Your task to perform on an android device: Go to ESPN.com Image 0: 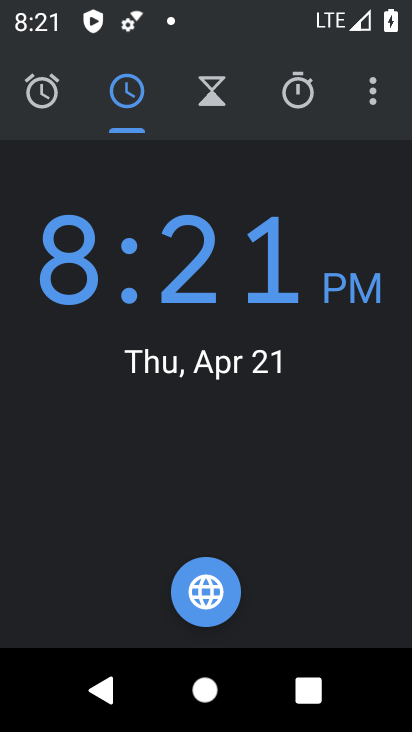
Step 0: press home button
Your task to perform on an android device: Go to ESPN.com Image 1: 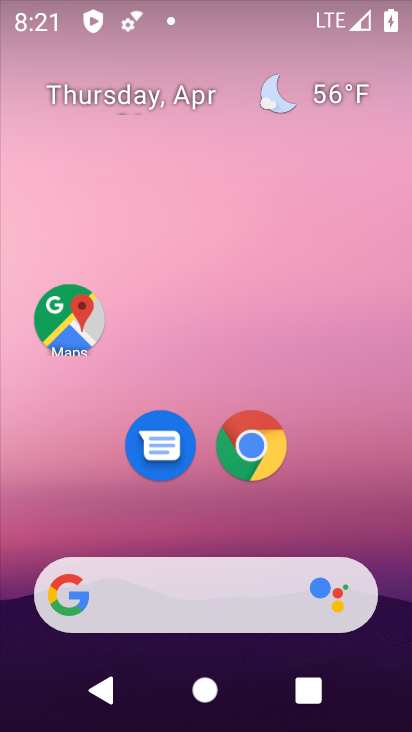
Step 1: click (272, 457)
Your task to perform on an android device: Go to ESPN.com Image 2: 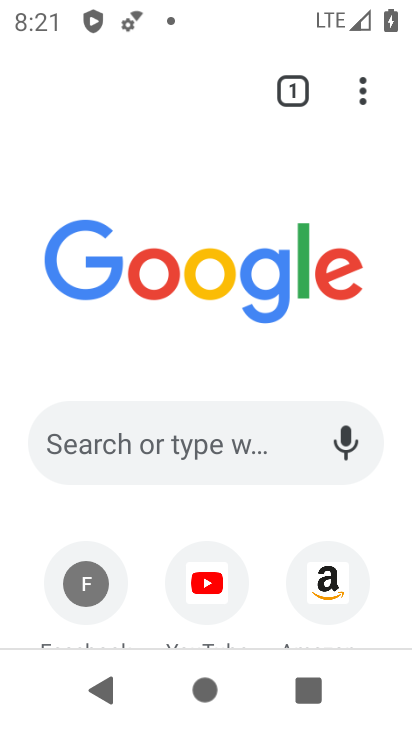
Step 2: drag from (381, 560) to (359, 282)
Your task to perform on an android device: Go to ESPN.com Image 3: 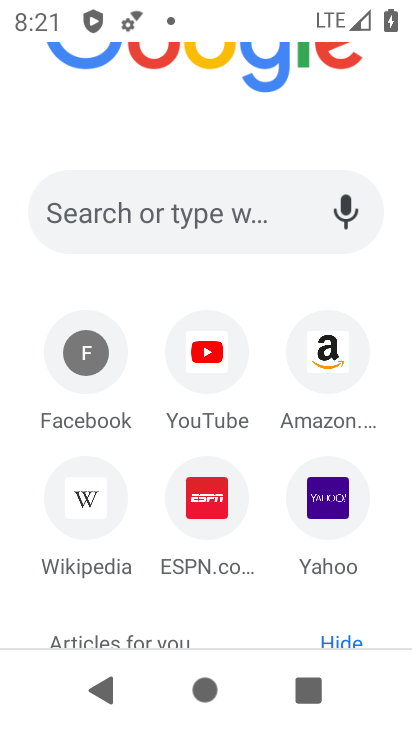
Step 3: click (206, 500)
Your task to perform on an android device: Go to ESPN.com Image 4: 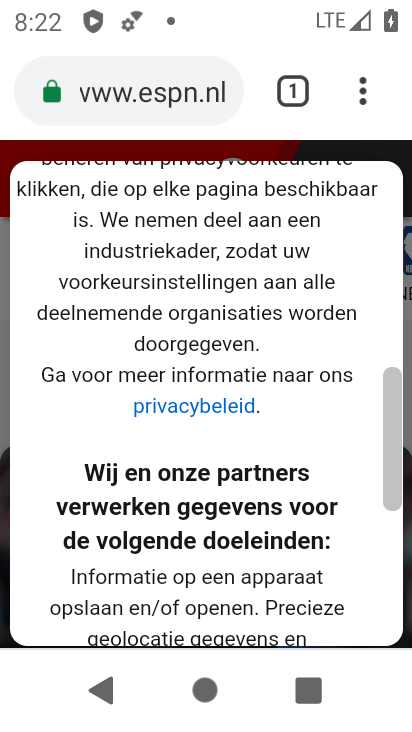
Step 4: task complete